Your task to perform on an android device: Go to privacy settings Image 0: 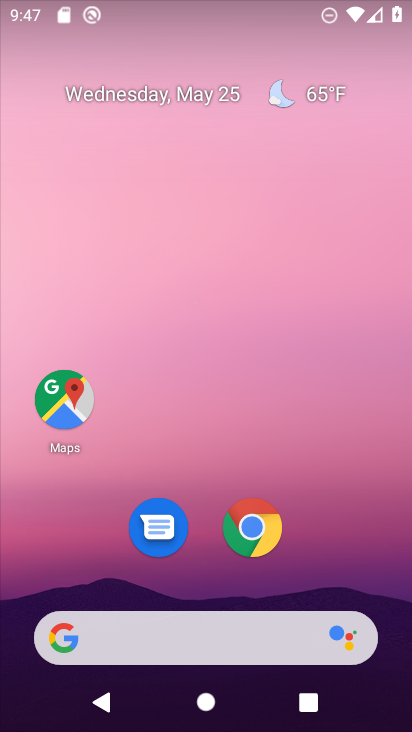
Step 0: drag from (327, 555) to (238, 39)
Your task to perform on an android device: Go to privacy settings Image 1: 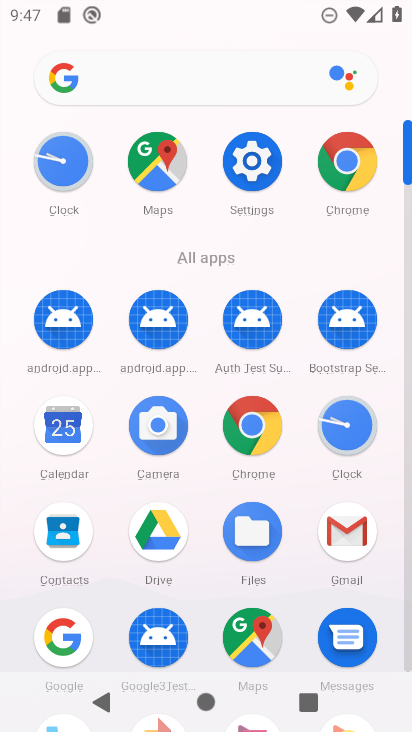
Step 1: click (252, 159)
Your task to perform on an android device: Go to privacy settings Image 2: 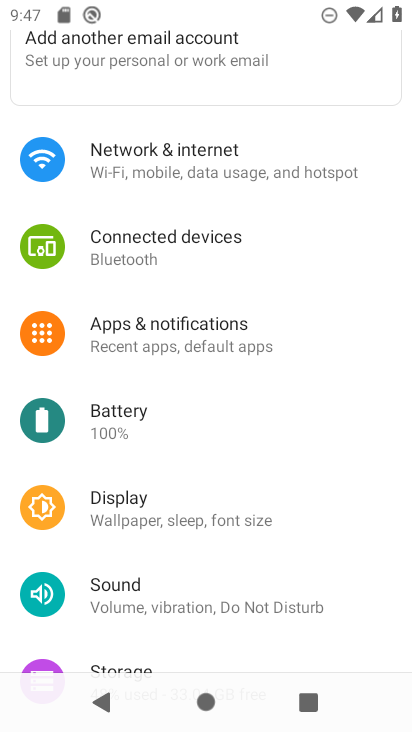
Step 2: drag from (208, 427) to (314, 305)
Your task to perform on an android device: Go to privacy settings Image 3: 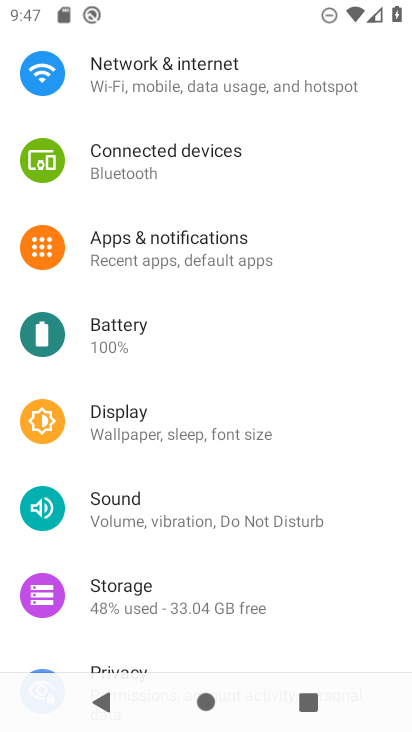
Step 3: drag from (148, 547) to (270, 385)
Your task to perform on an android device: Go to privacy settings Image 4: 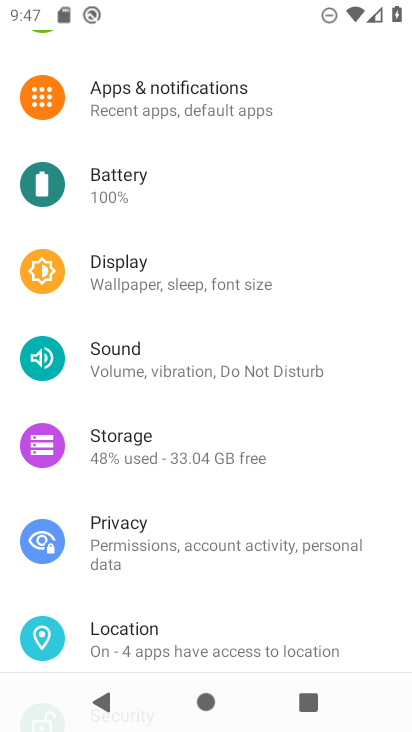
Step 4: click (121, 541)
Your task to perform on an android device: Go to privacy settings Image 5: 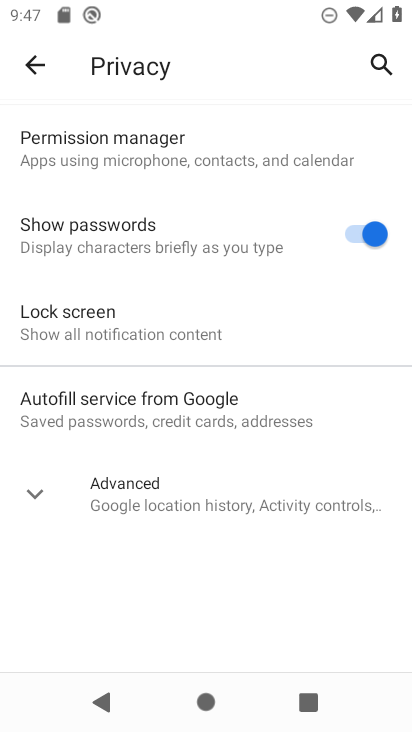
Step 5: task complete